Your task to perform on an android device: manage bookmarks in the chrome app Image 0: 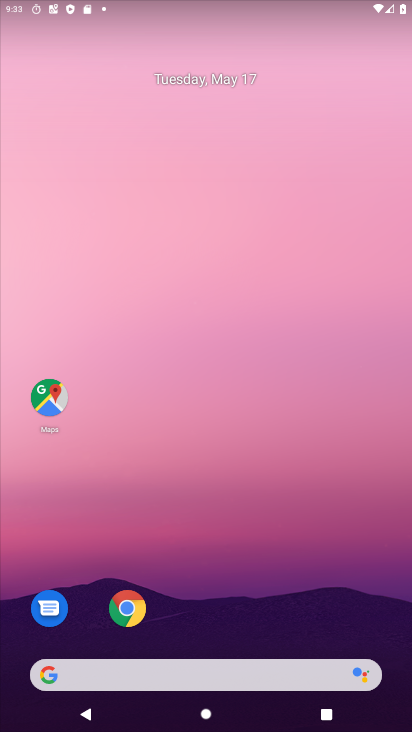
Step 0: drag from (250, 559) to (263, 107)
Your task to perform on an android device: manage bookmarks in the chrome app Image 1: 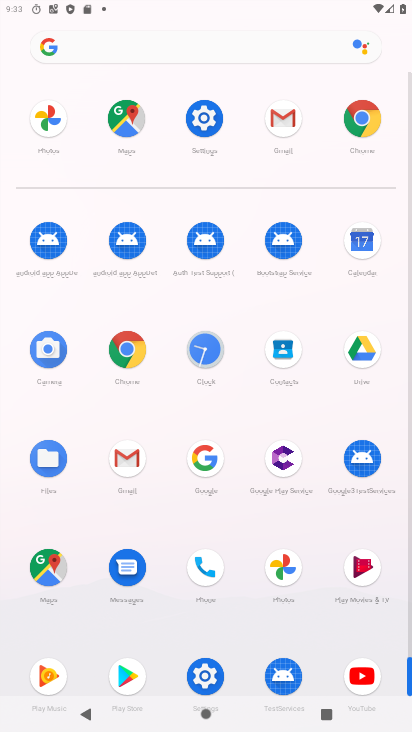
Step 1: click (131, 343)
Your task to perform on an android device: manage bookmarks in the chrome app Image 2: 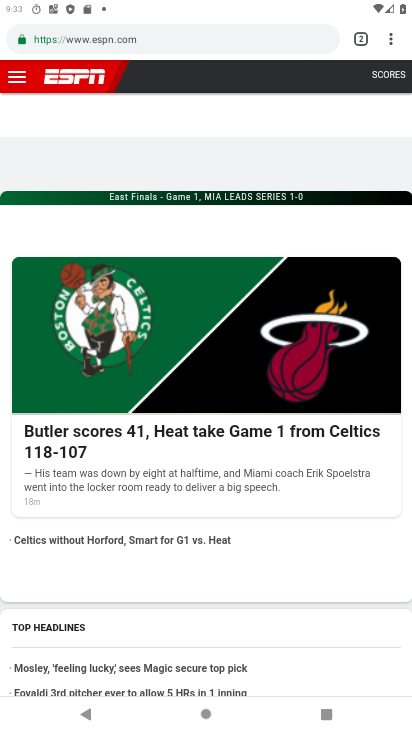
Step 2: task complete